Your task to perform on an android device: Open settings on Google Maps Image 0: 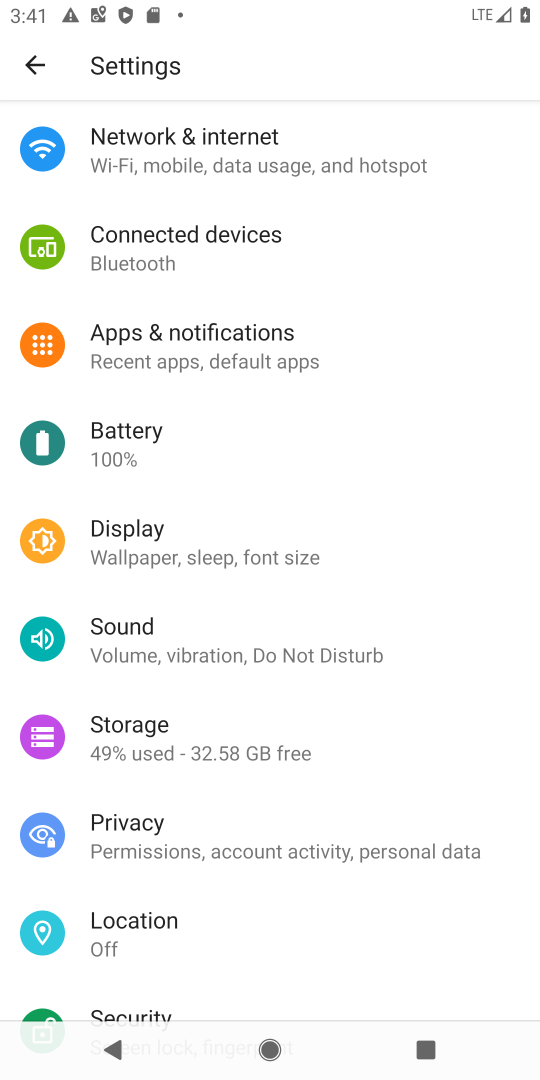
Step 0: press back button
Your task to perform on an android device: Open settings on Google Maps Image 1: 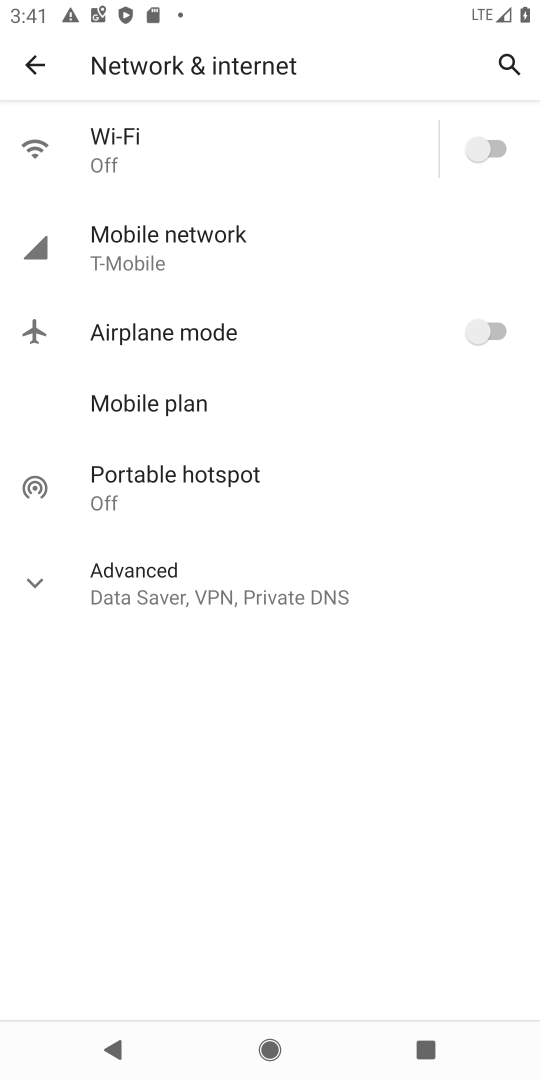
Step 1: press back button
Your task to perform on an android device: Open settings on Google Maps Image 2: 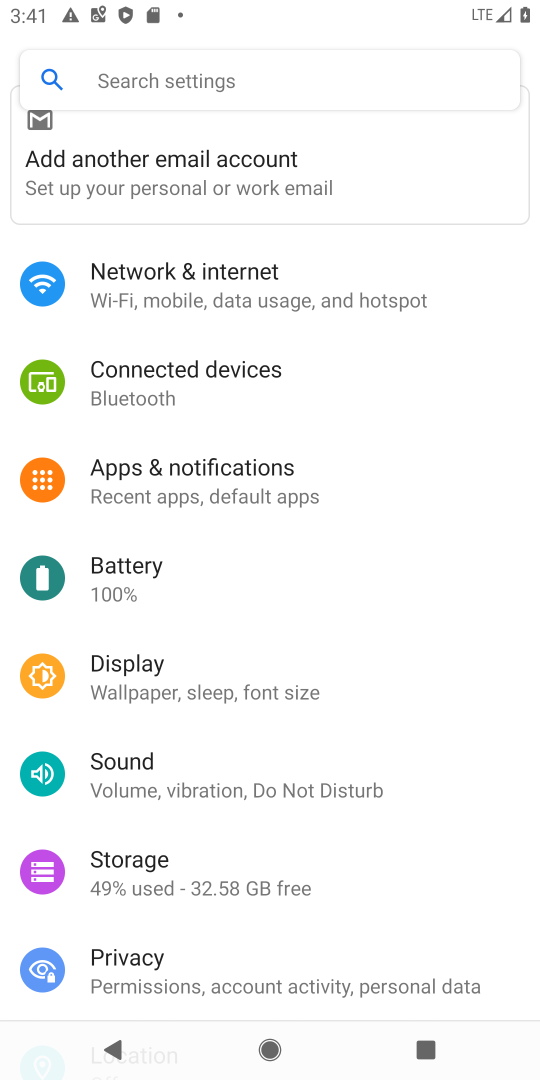
Step 2: press back button
Your task to perform on an android device: Open settings on Google Maps Image 3: 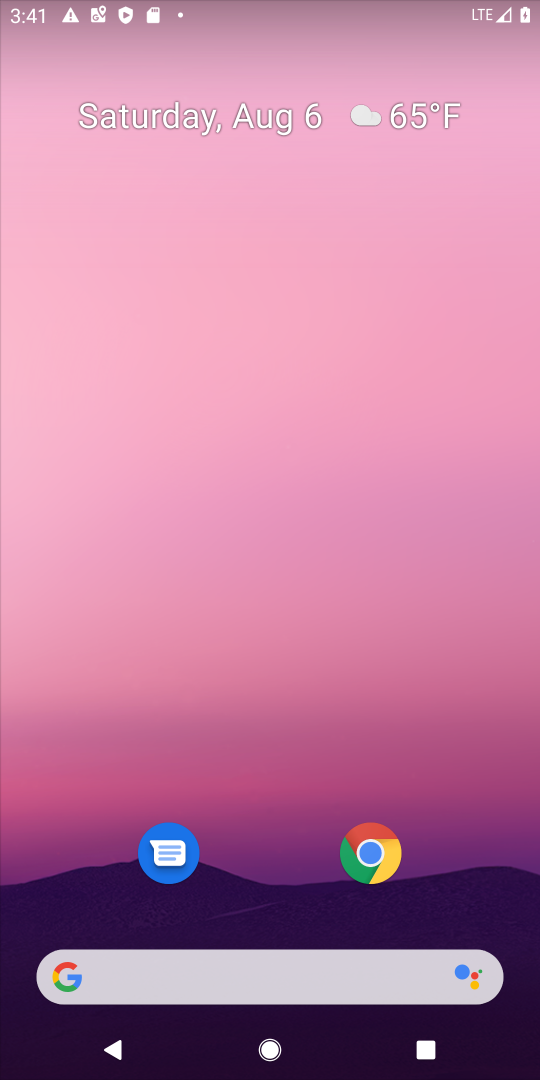
Step 3: drag from (302, 721) to (341, 87)
Your task to perform on an android device: Open settings on Google Maps Image 4: 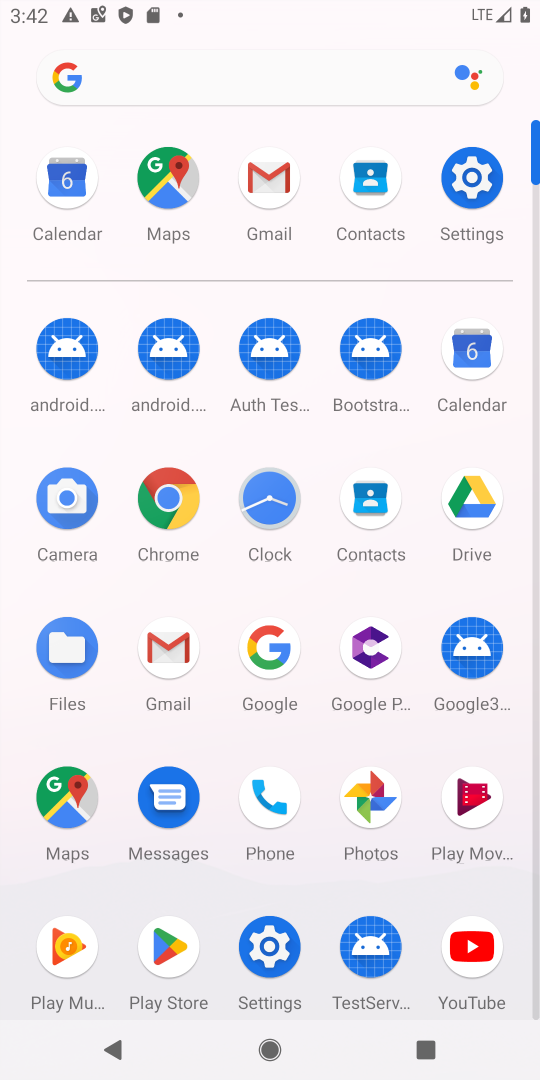
Step 4: click (173, 183)
Your task to perform on an android device: Open settings on Google Maps Image 5: 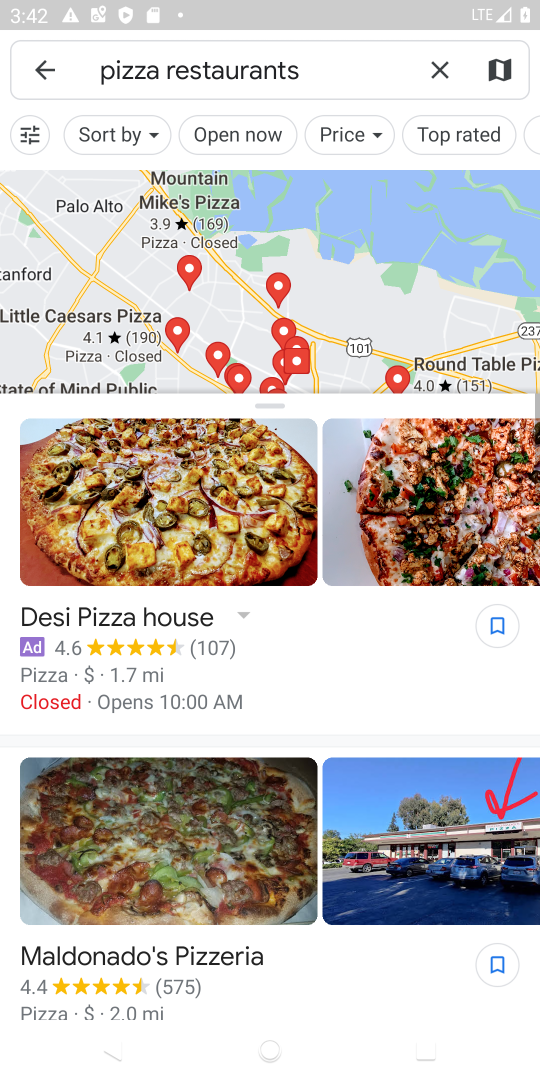
Step 5: click (41, 60)
Your task to perform on an android device: Open settings on Google Maps Image 6: 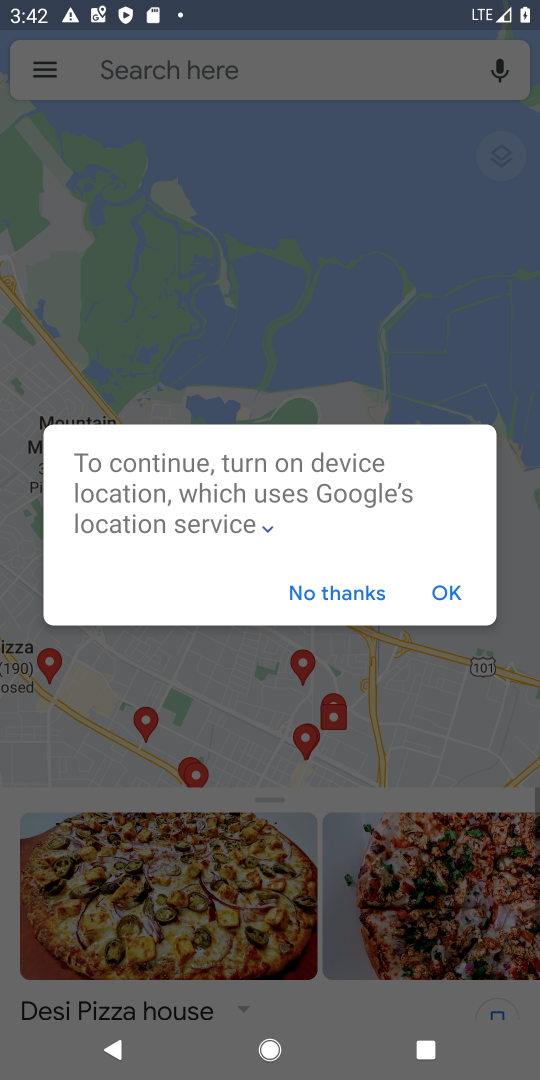
Step 6: click (325, 594)
Your task to perform on an android device: Open settings on Google Maps Image 7: 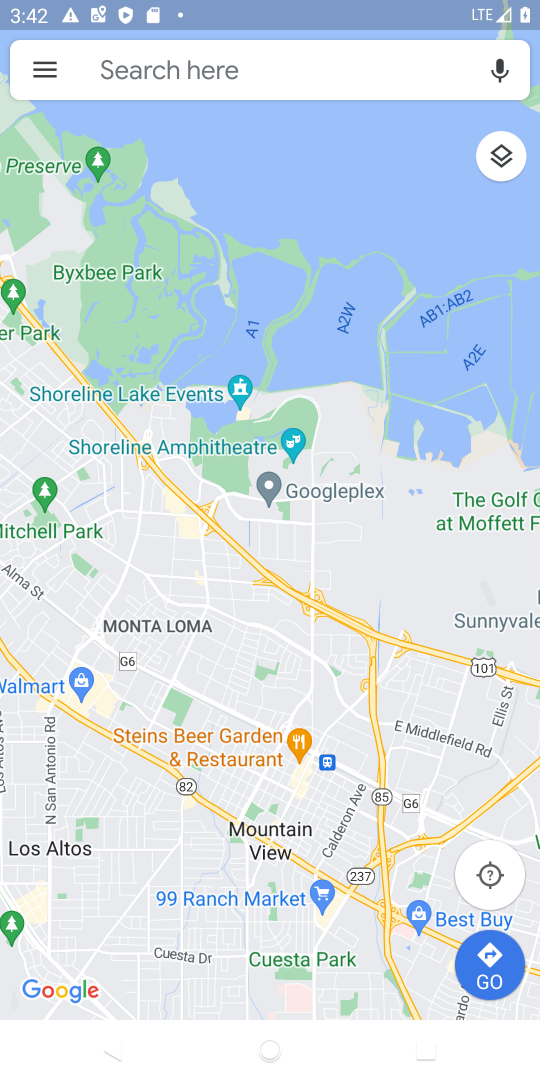
Step 7: click (37, 67)
Your task to perform on an android device: Open settings on Google Maps Image 8: 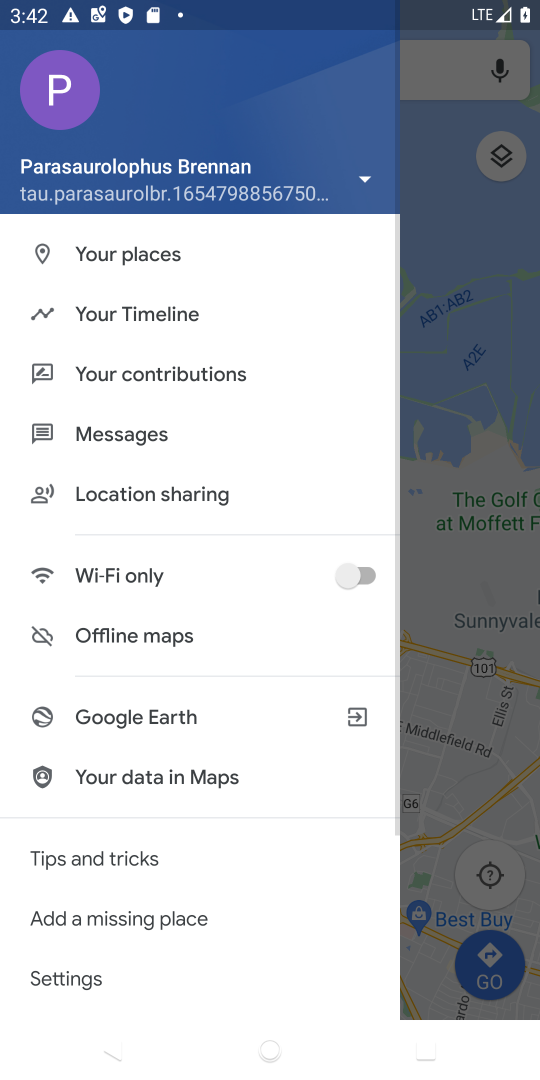
Step 8: click (93, 983)
Your task to perform on an android device: Open settings on Google Maps Image 9: 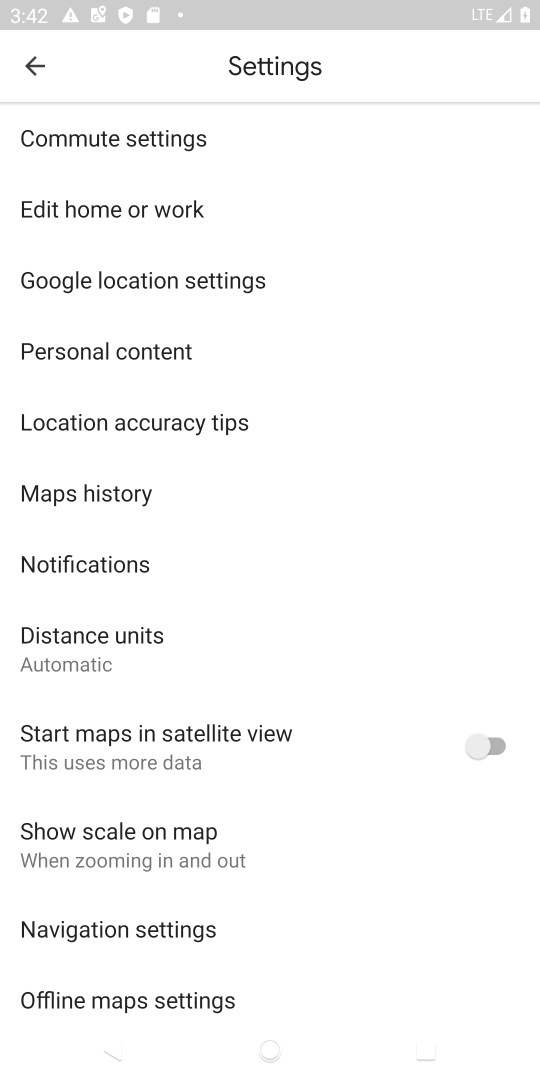
Step 9: task complete